Your task to perform on an android device: turn off translation in the chrome app Image 0: 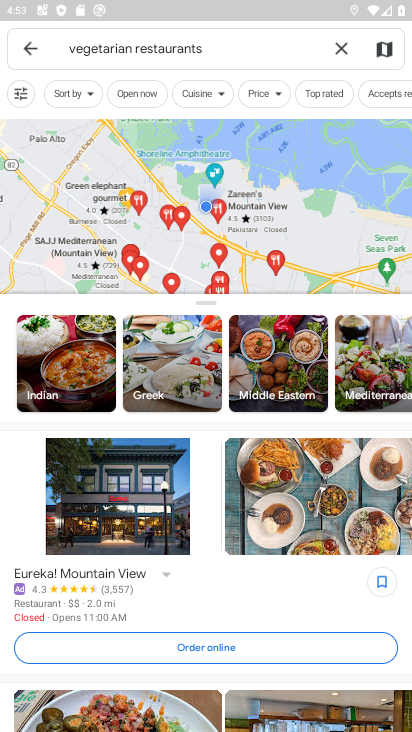
Step 0: press home button
Your task to perform on an android device: turn off translation in the chrome app Image 1: 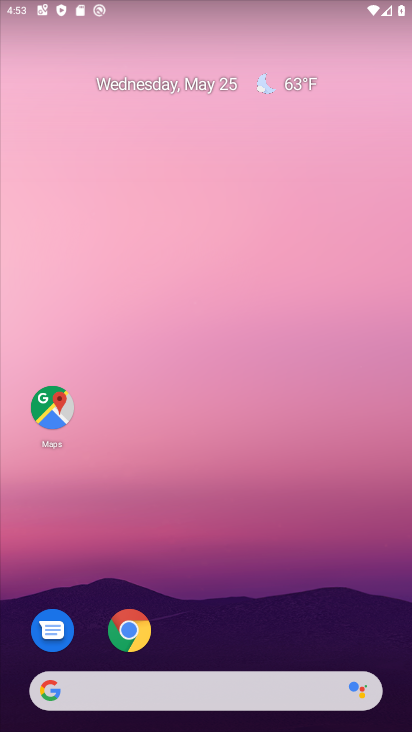
Step 1: click (119, 623)
Your task to perform on an android device: turn off translation in the chrome app Image 2: 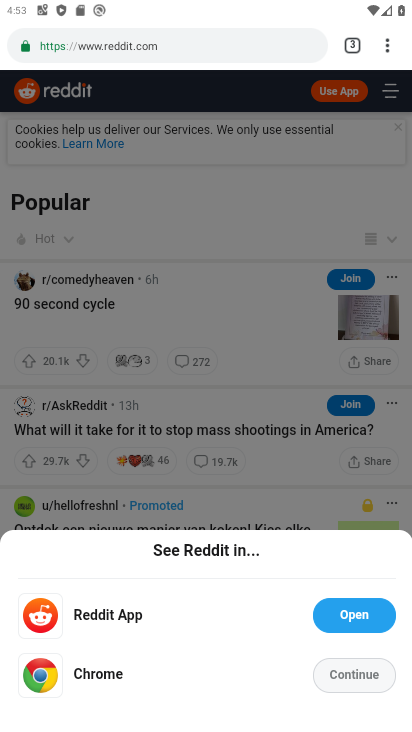
Step 2: drag from (391, 38) to (240, 503)
Your task to perform on an android device: turn off translation in the chrome app Image 3: 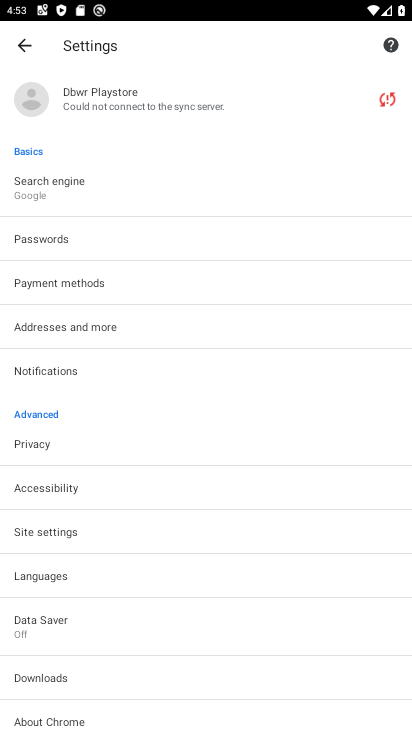
Step 3: click (50, 576)
Your task to perform on an android device: turn off translation in the chrome app Image 4: 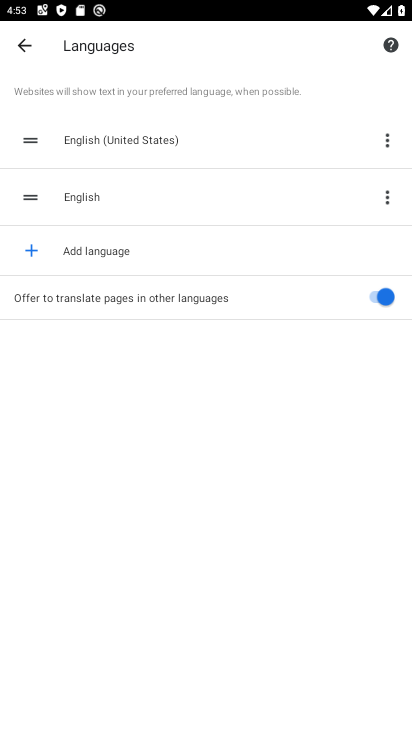
Step 4: click (380, 300)
Your task to perform on an android device: turn off translation in the chrome app Image 5: 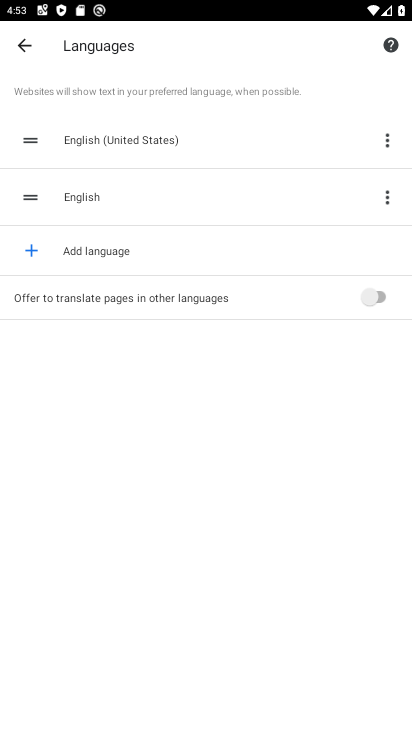
Step 5: task complete